Your task to perform on an android device: turn smart compose on in the gmail app Image 0: 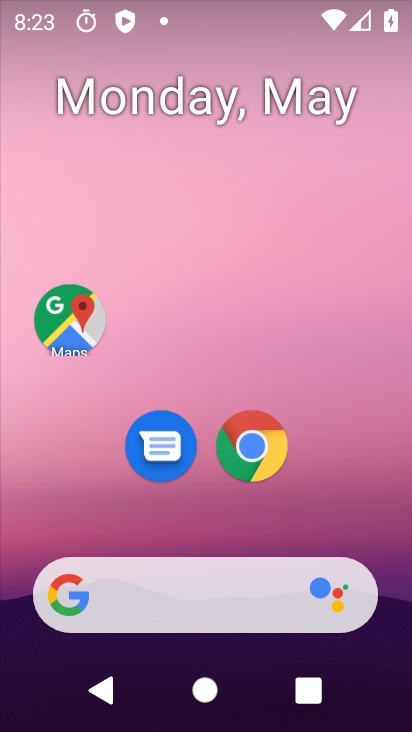
Step 0: drag from (357, 548) to (408, 348)
Your task to perform on an android device: turn smart compose on in the gmail app Image 1: 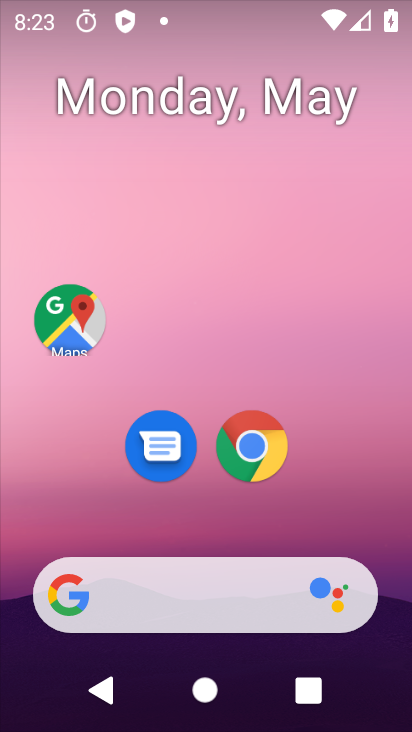
Step 1: drag from (366, 502) to (317, 28)
Your task to perform on an android device: turn smart compose on in the gmail app Image 2: 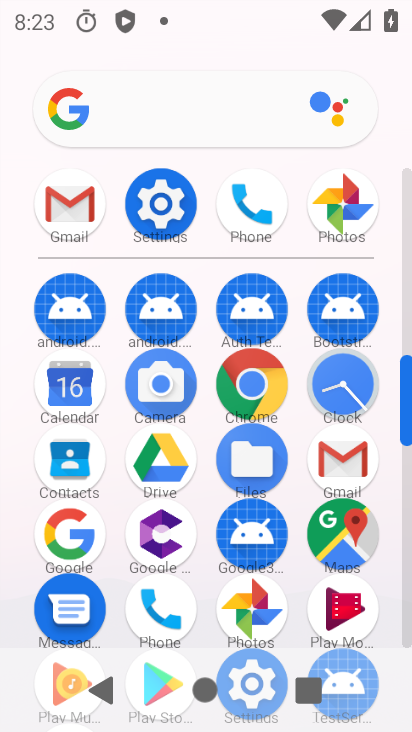
Step 2: click (67, 213)
Your task to perform on an android device: turn smart compose on in the gmail app Image 3: 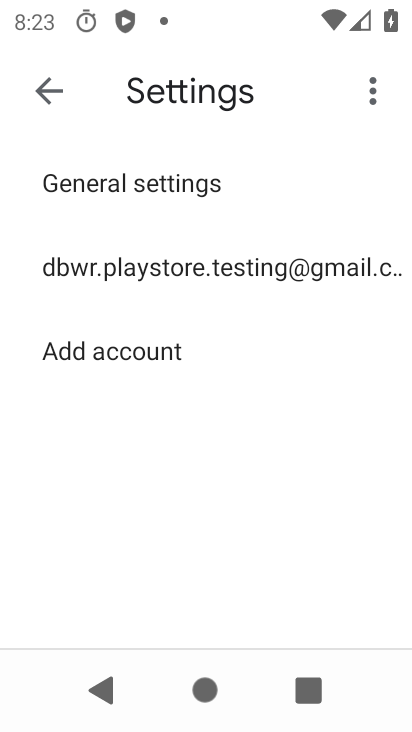
Step 3: click (194, 267)
Your task to perform on an android device: turn smart compose on in the gmail app Image 4: 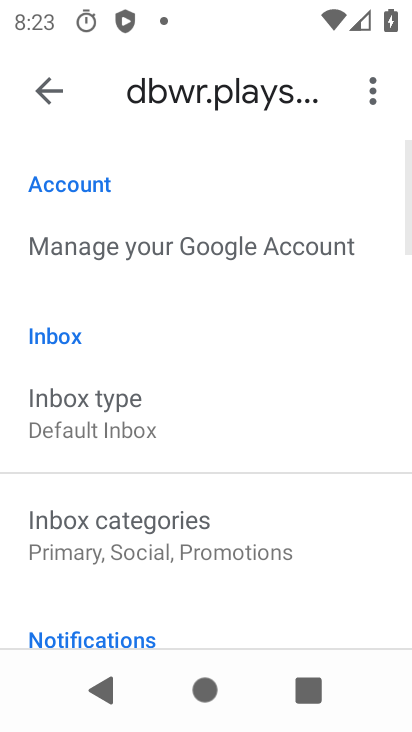
Step 4: task complete